Your task to perform on an android device: toggle airplane mode Image 0: 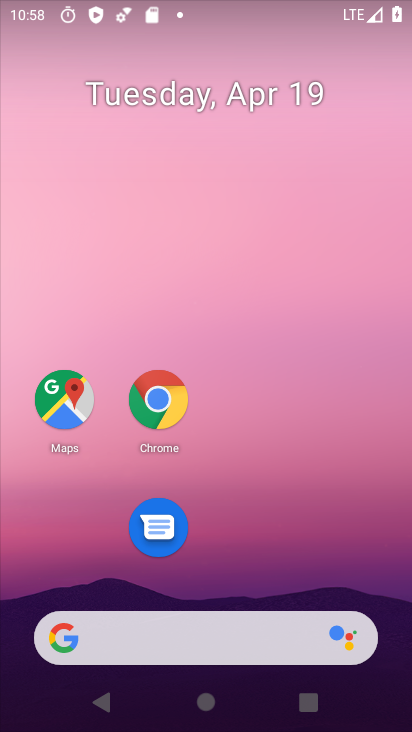
Step 0: drag from (258, 670) to (293, 110)
Your task to perform on an android device: toggle airplane mode Image 1: 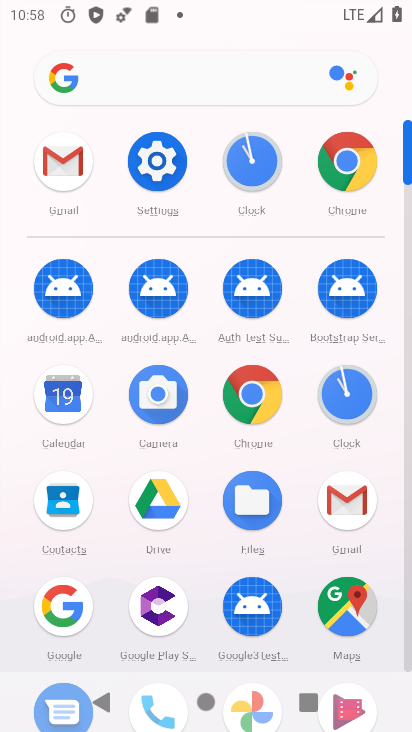
Step 1: click (158, 160)
Your task to perform on an android device: toggle airplane mode Image 2: 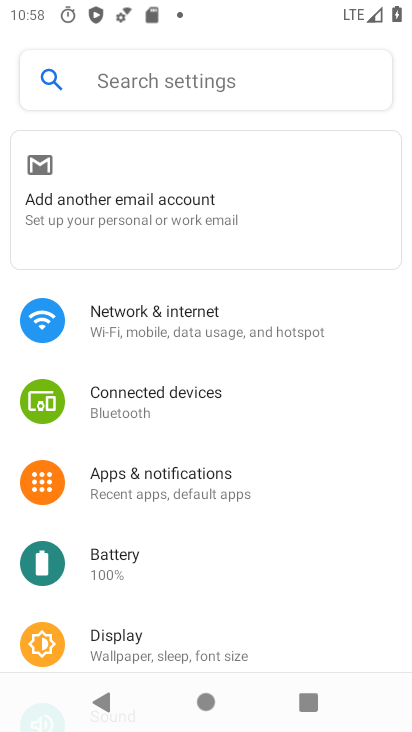
Step 2: click (132, 318)
Your task to perform on an android device: toggle airplane mode Image 3: 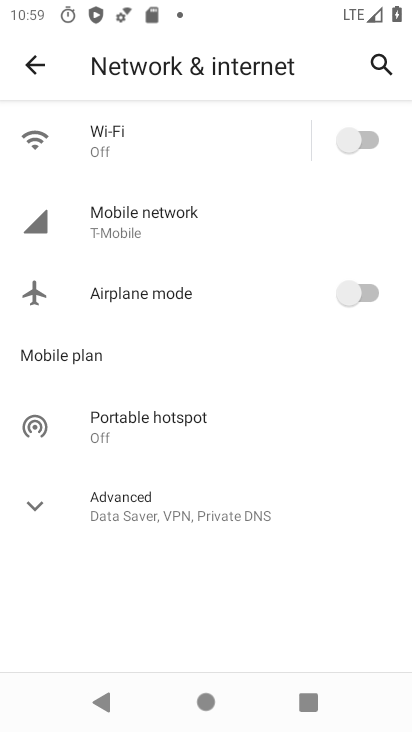
Step 3: task complete